Your task to perform on an android device: choose inbox layout in the gmail app Image 0: 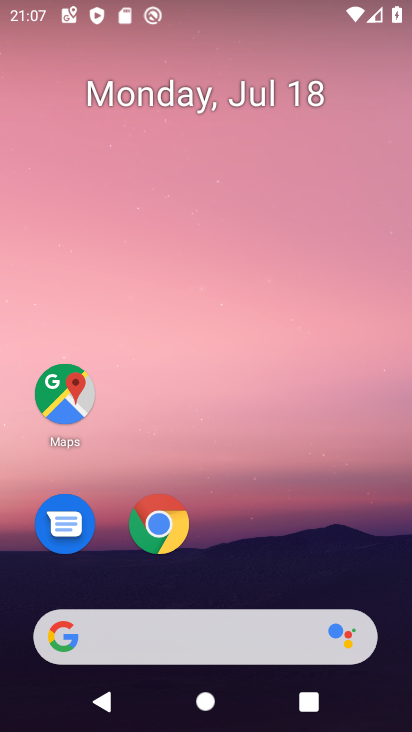
Step 0: drag from (297, 515) to (293, 59)
Your task to perform on an android device: choose inbox layout in the gmail app Image 1: 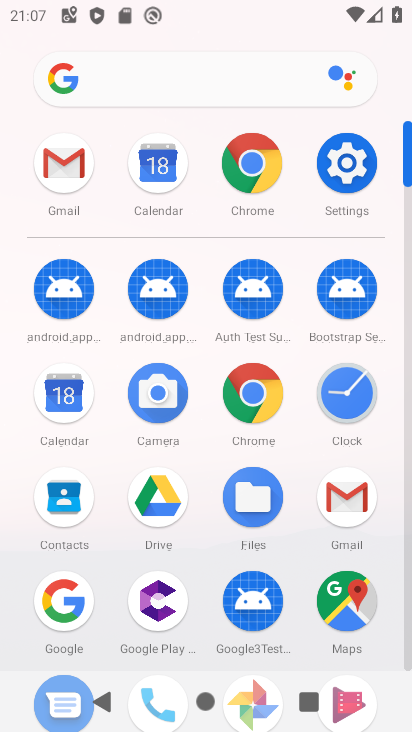
Step 1: click (72, 161)
Your task to perform on an android device: choose inbox layout in the gmail app Image 2: 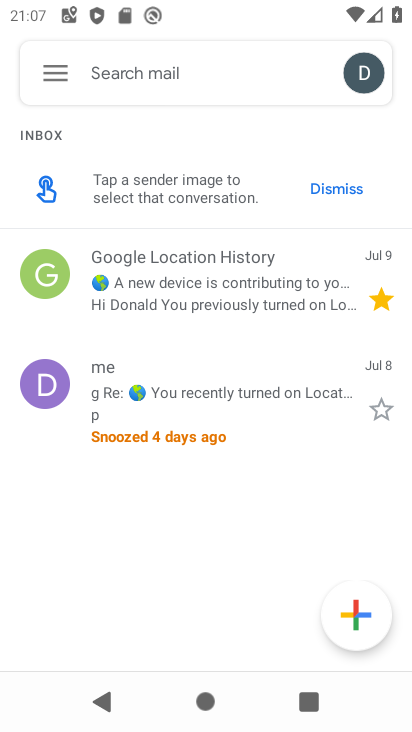
Step 2: click (49, 73)
Your task to perform on an android device: choose inbox layout in the gmail app Image 3: 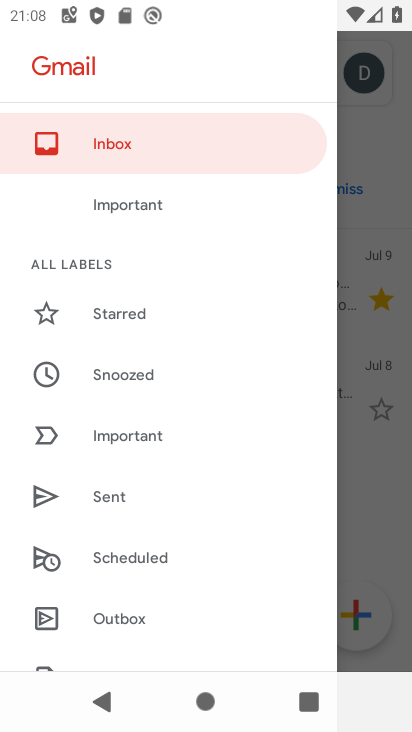
Step 3: drag from (225, 523) to (211, 174)
Your task to perform on an android device: choose inbox layout in the gmail app Image 4: 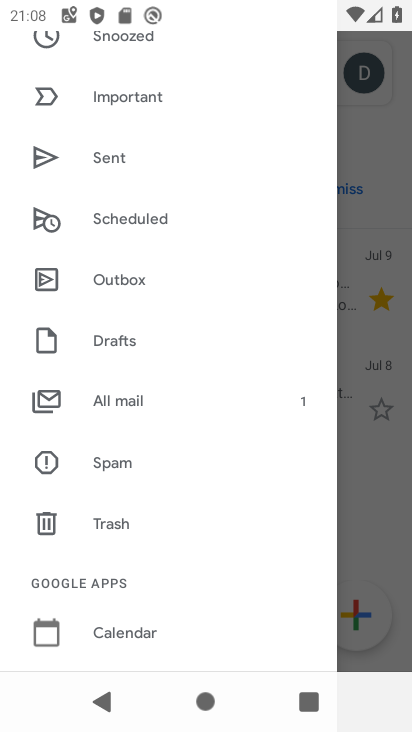
Step 4: drag from (174, 398) to (174, 185)
Your task to perform on an android device: choose inbox layout in the gmail app Image 5: 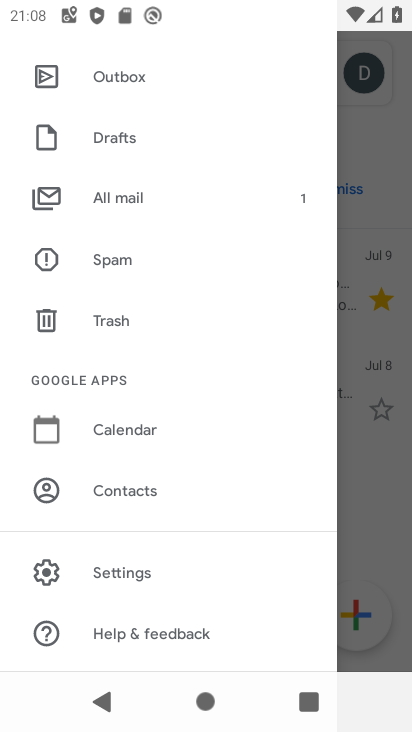
Step 5: click (125, 569)
Your task to perform on an android device: choose inbox layout in the gmail app Image 6: 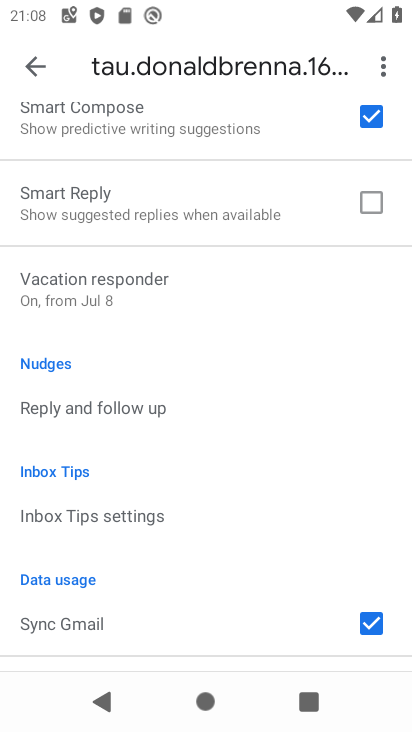
Step 6: drag from (278, 317) to (303, 560)
Your task to perform on an android device: choose inbox layout in the gmail app Image 7: 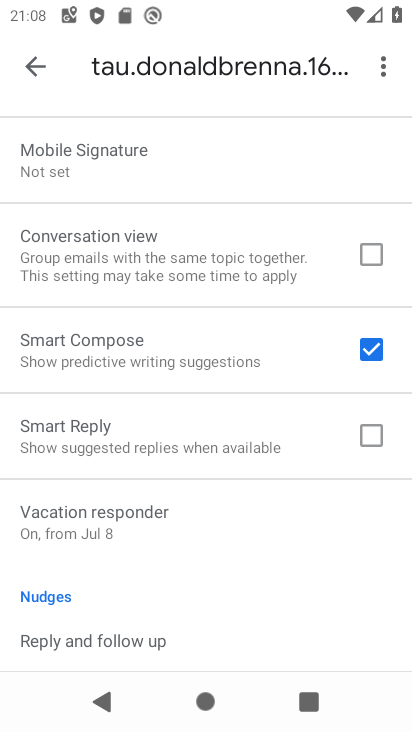
Step 7: drag from (226, 237) to (216, 647)
Your task to perform on an android device: choose inbox layout in the gmail app Image 8: 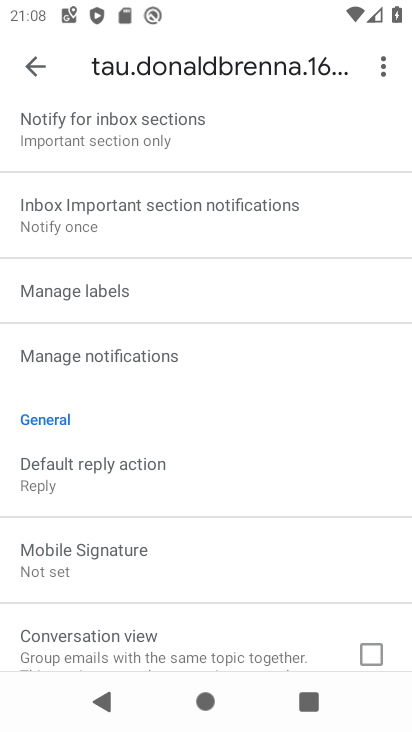
Step 8: drag from (268, 334) to (272, 673)
Your task to perform on an android device: choose inbox layout in the gmail app Image 9: 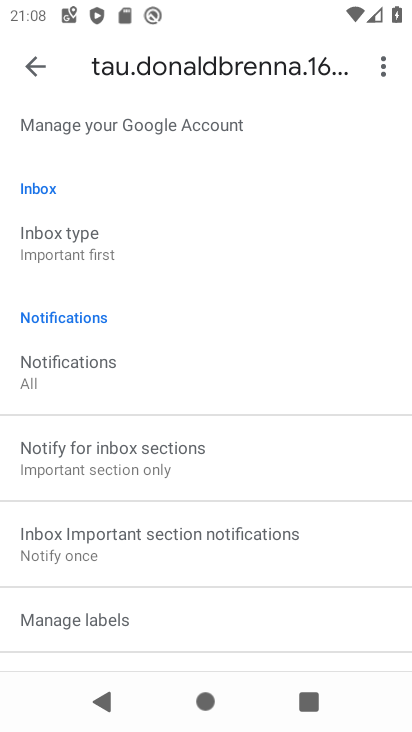
Step 9: drag from (168, 209) to (198, 593)
Your task to perform on an android device: choose inbox layout in the gmail app Image 10: 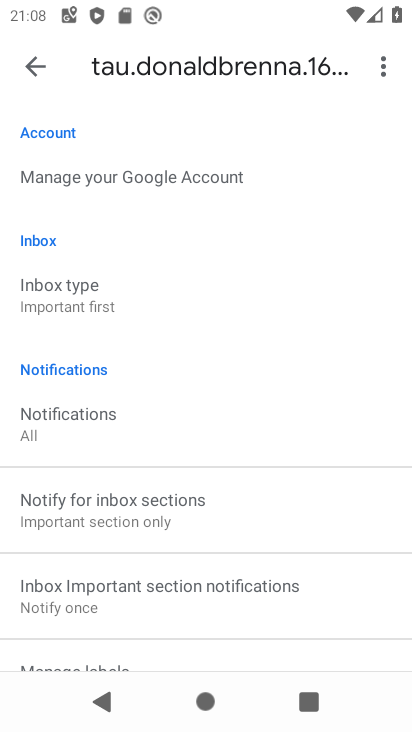
Step 10: click (87, 293)
Your task to perform on an android device: choose inbox layout in the gmail app Image 11: 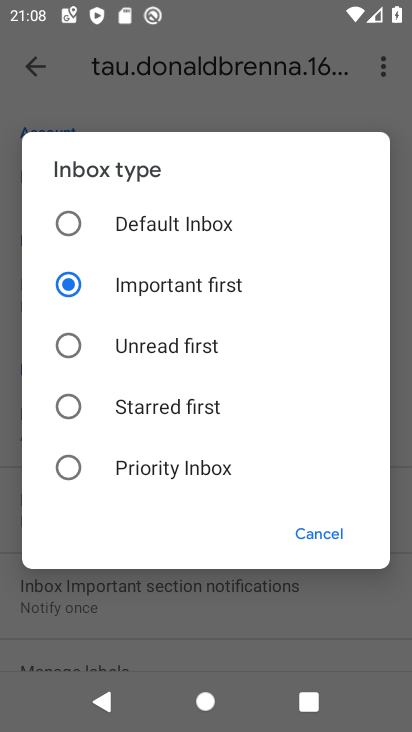
Step 11: click (65, 216)
Your task to perform on an android device: choose inbox layout in the gmail app Image 12: 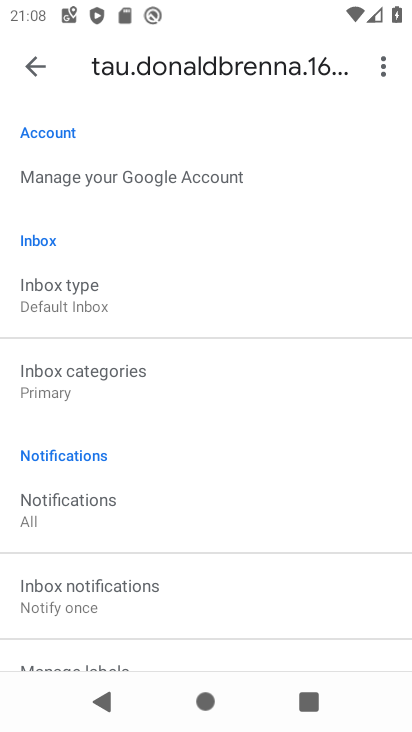
Step 12: task complete